Your task to perform on an android device: change the clock style Image 0: 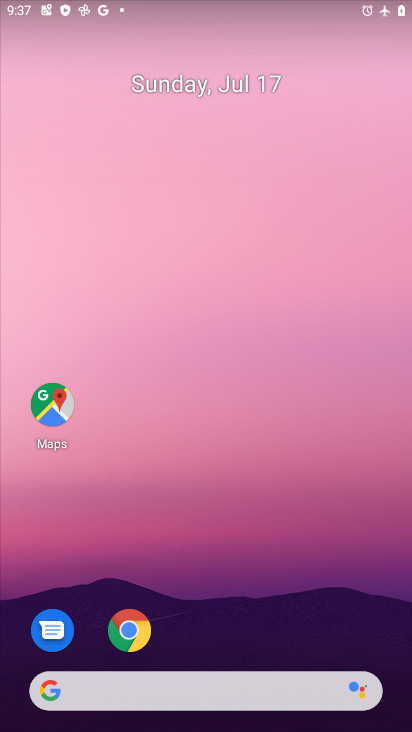
Step 0: drag from (153, 455) to (182, 22)
Your task to perform on an android device: change the clock style Image 1: 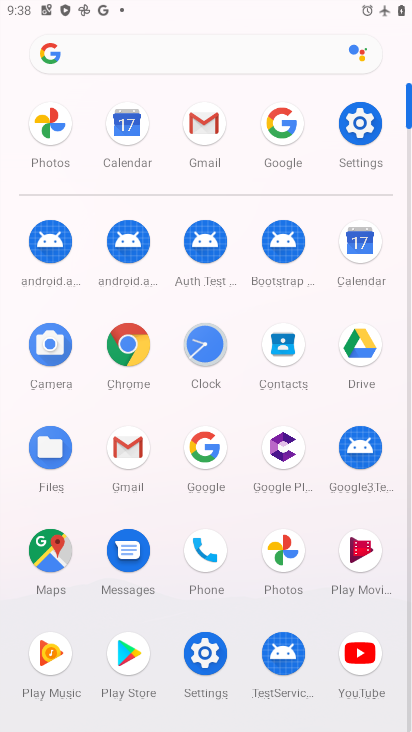
Step 1: click (361, 141)
Your task to perform on an android device: change the clock style Image 2: 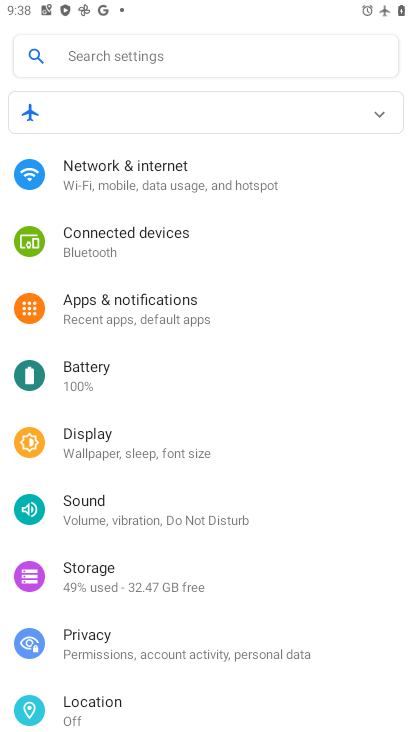
Step 2: press back button
Your task to perform on an android device: change the clock style Image 3: 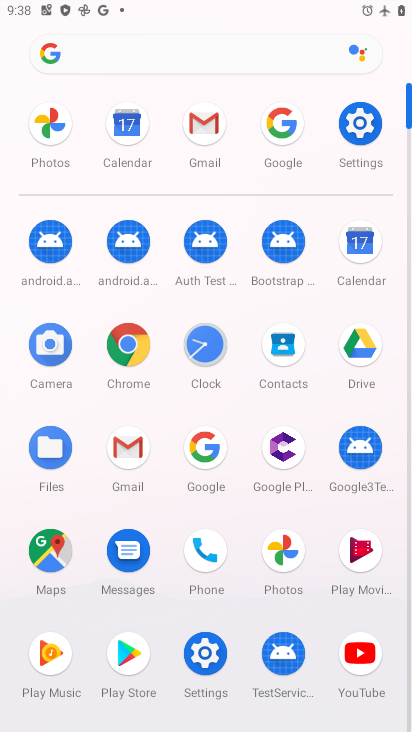
Step 3: click (197, 379)
Your task to perform on an android device: change the clock style Image 4: 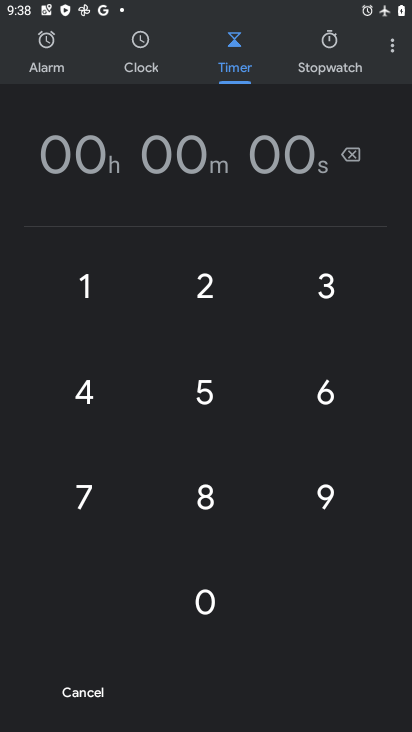
Step 4: click (401, 52)
Your task to perform on an android device: change the clock style Image 5: 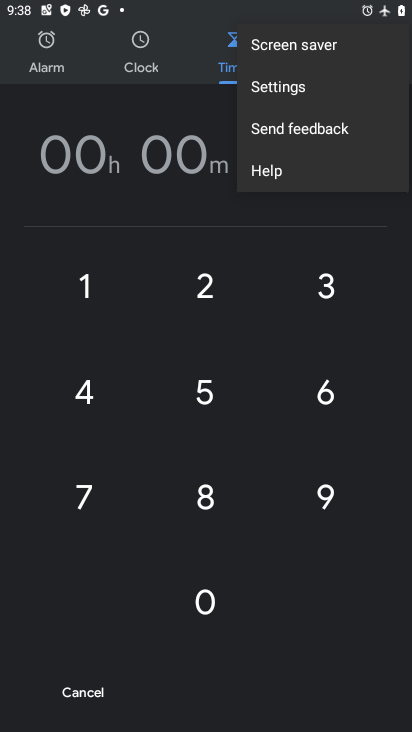
Step 5: click (294, 98)
Your task to perform on an android device: change the clock style Image 6: 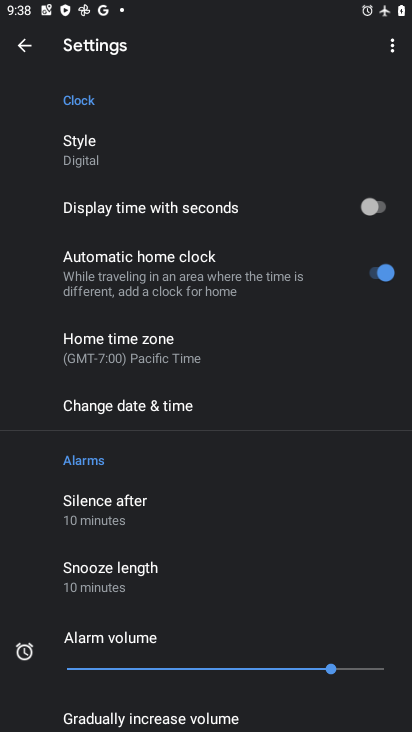
Step 6: click (106, 155)
Your task to perform on an android device: change the clock style Image 7: 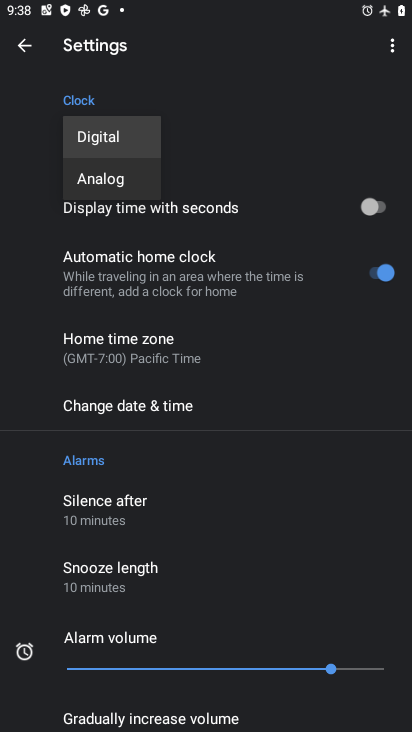
Step 7: click (106, 180)
Your task to perform on an android device: change the clock style Image 8: 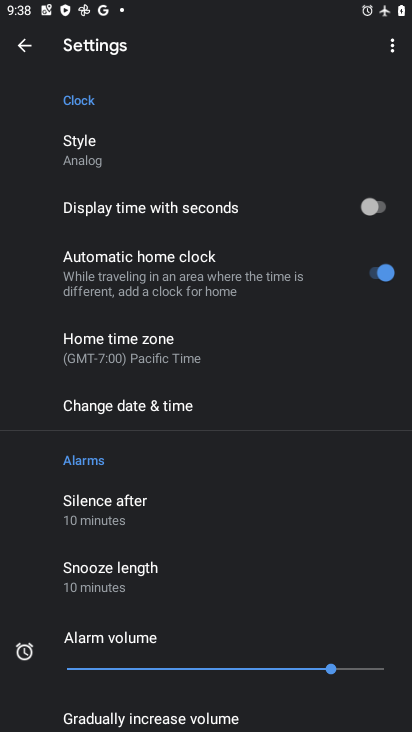
Step 8: task complete